Your task to perform on an android device: find snoozed emails in the gmail app Image 0: 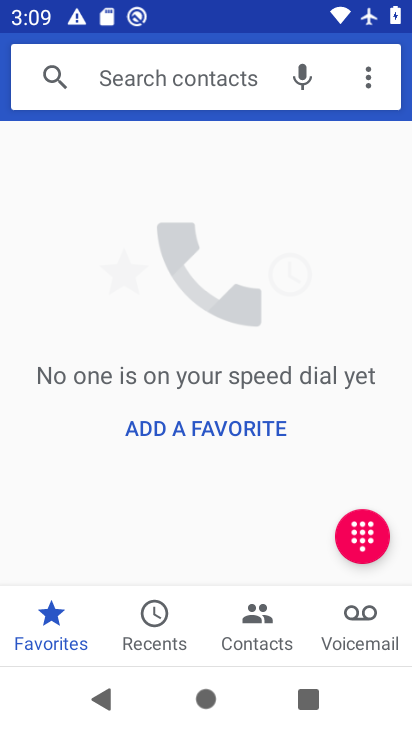
Step 0: press home button
Your task to perform on an android device: find snoozed emails in the gmail app Image 1: 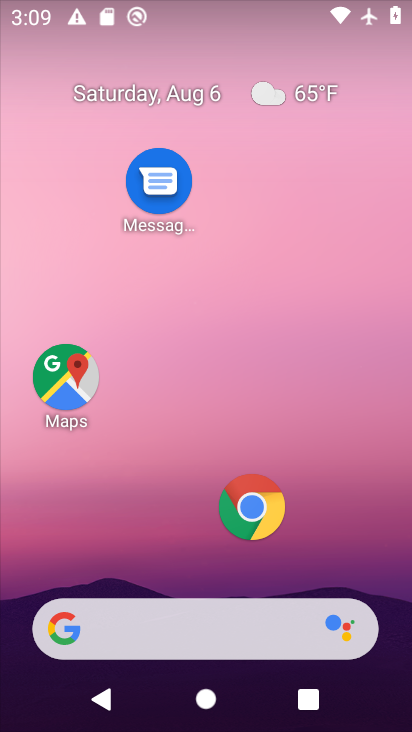
Step 1: drag from (175, 517) to (247, 21)
Your task to perform on an android device: find snoozed emails in the gmail app Image 2: 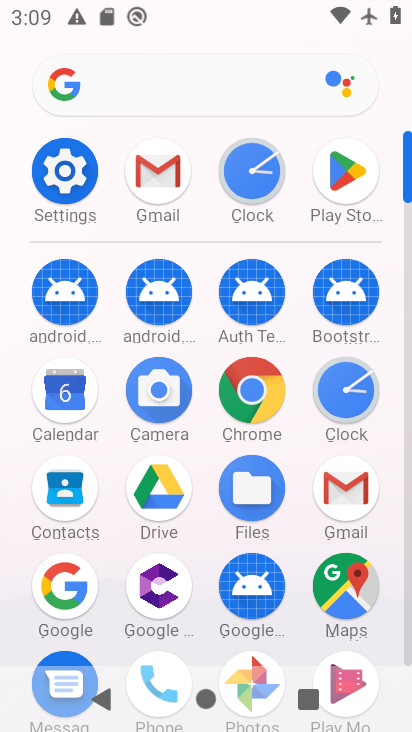
Step 2: click (337, 500)
Your task to perform on an android device: find snoozed emails in the gmail app Image 3: 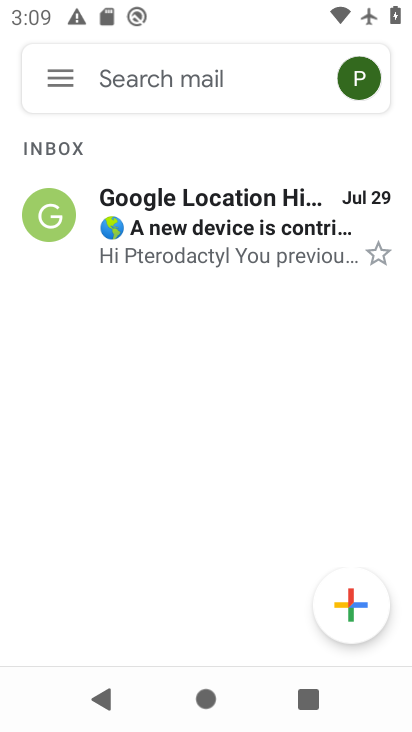
Step 3: click (47, 70)
Your task to perform on an android device: find snoozed emails in the gmail app Image 4: 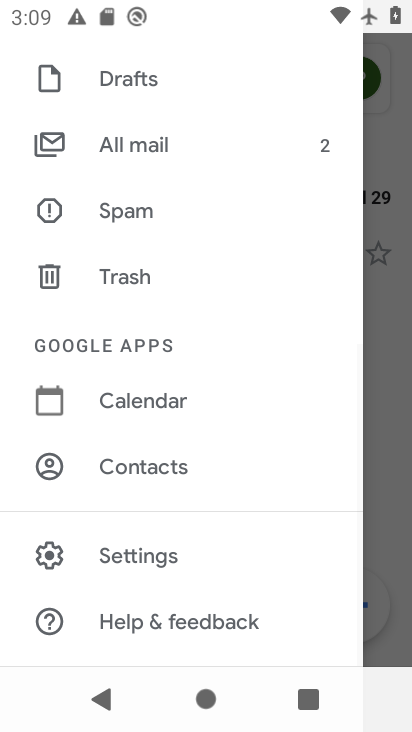
Step 4: drag from (129, 197) to (139, 731)
Your task to perform on an android device: find snoozed emails in the gmail app Image 5: 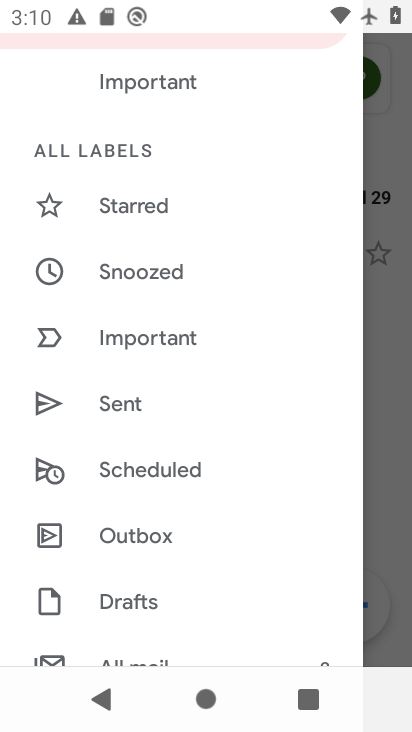
Step 5: click (161, 271)
Your task to perform on an android device: find snoozed emails in the gmail app Image 6: 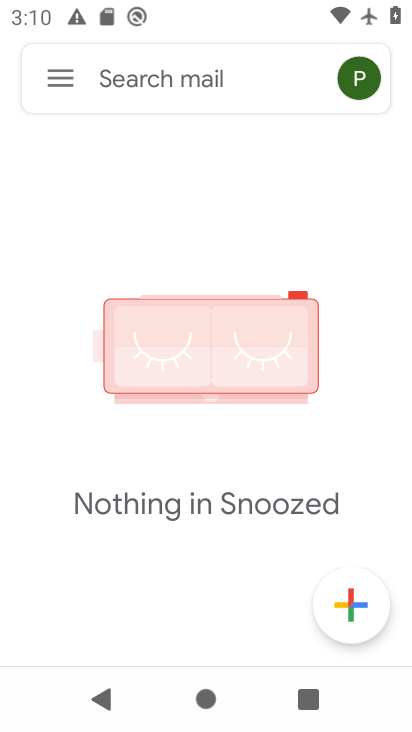
Step 6: task complete